Your task to perform on an android device: set the timer Image 0: 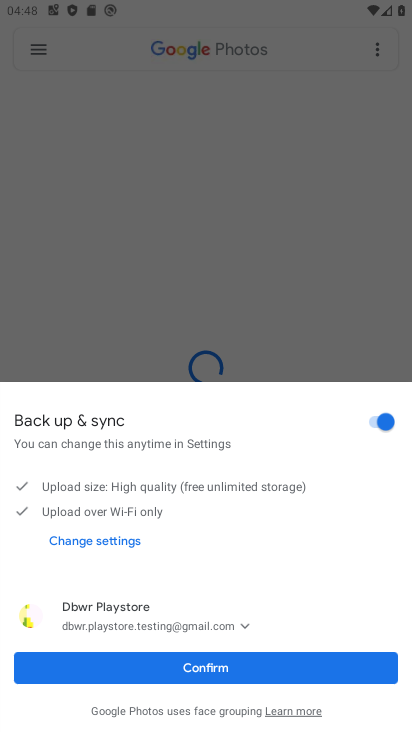
Step 0: press home button
Your task to perform on an android device: set the timer Image 1: 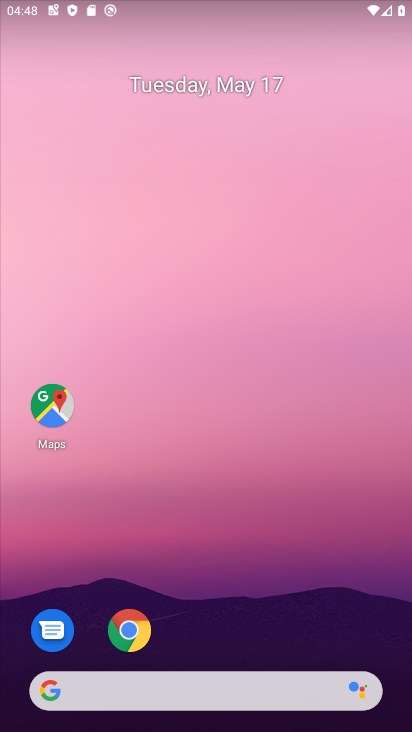
Step 1: drag from (244, 561) to (309, 51)
Your task to perform on an android device: set the timer Image 2: 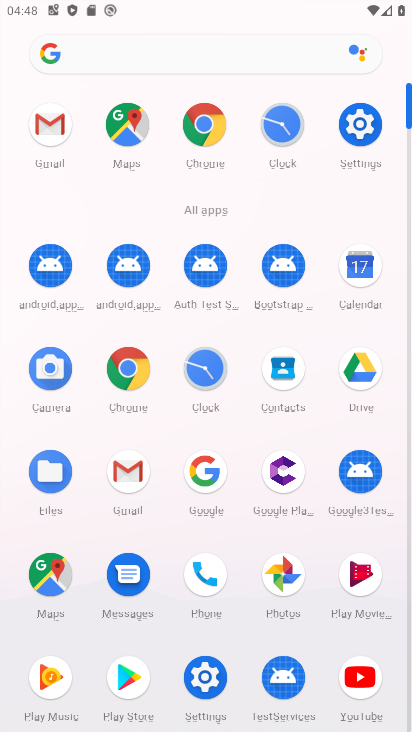
Step 2: click (352, 120)
Your task to perform on an android device: set the timer Image 3: 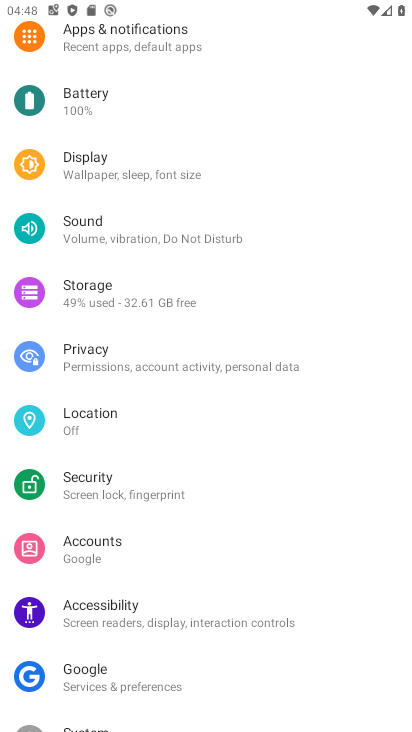
Step 3: press home button
Your task to perform on an android device: set the timer Image 4: 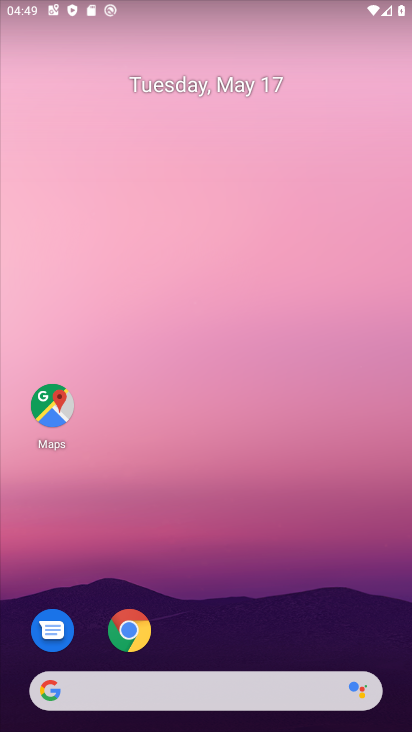
Step 4: drag from (249, 553) to (310, 49)
Your task to perform on an android device: set the timer Image 5: 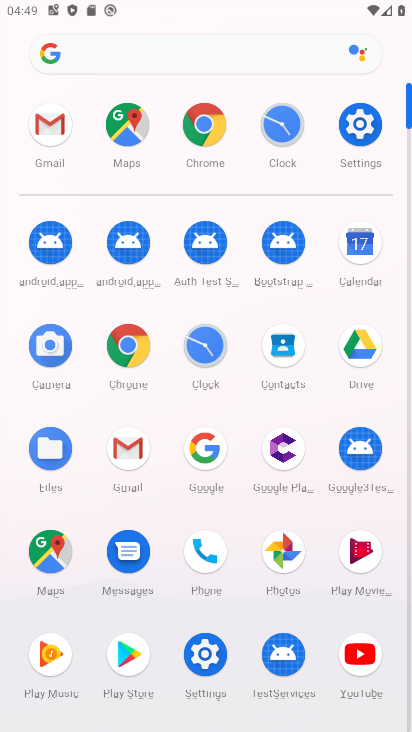
Step 5: click (288, 113)
Your task to perform on an android device: set the timer Image 6: 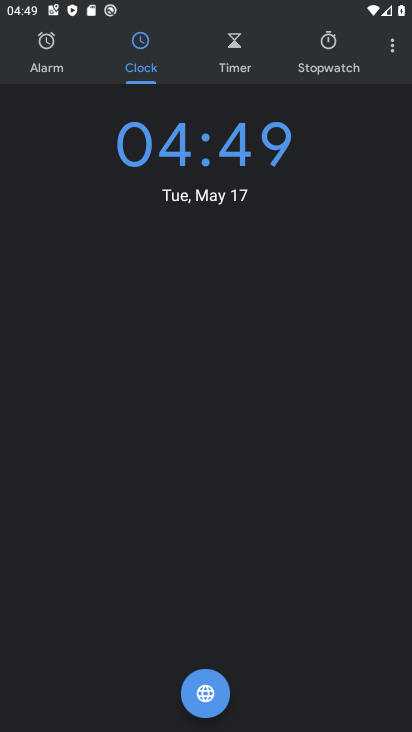
Step 6: click (233, 51)
Your task to perform on an android device: set the timer Image 7: 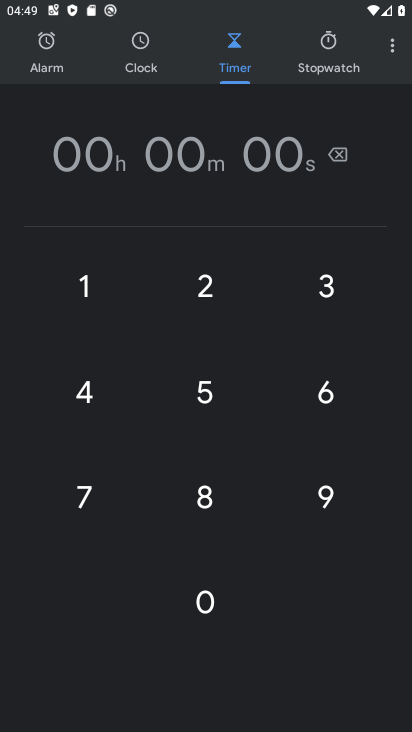
Step 7: click (209, 388)
Your task to perform on an android device: set the timer Image 8: 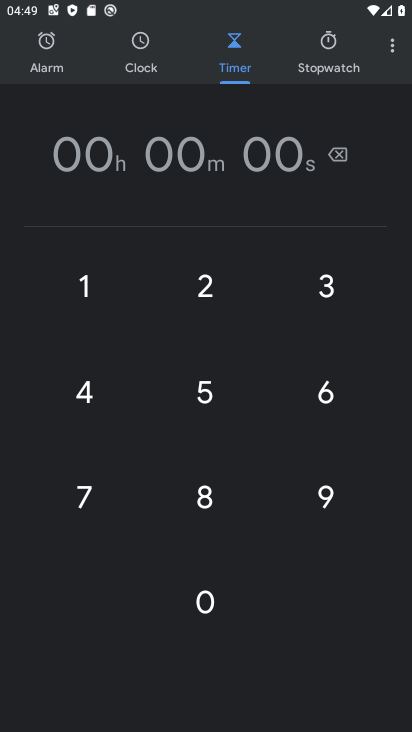
Step 8: click (209, 388)
Your task to perform on an android device: set the timer Image 9: 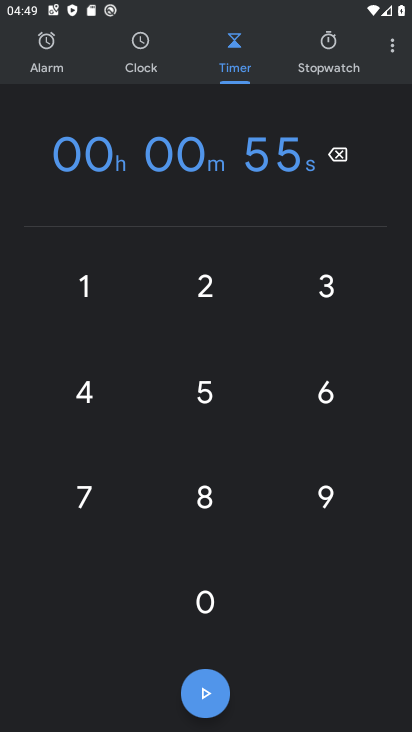
Step 9: click (211, 493)
Your task to perform on an android device: set the timer Image 10: 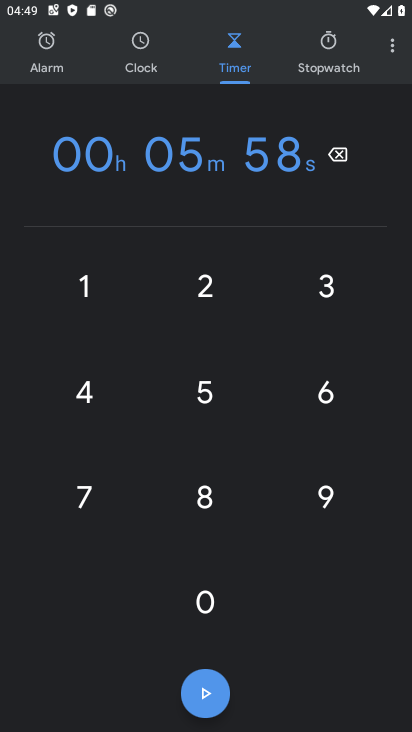
Step 10: click (207, 396)
Your task to perform on an android device: set the timer Image 11: 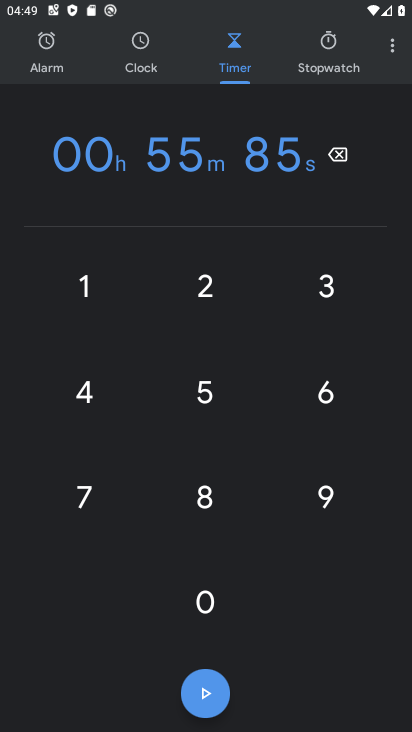
Step 11: click (222, 706)
Your task to perform on an android device: set the timer Image 12: 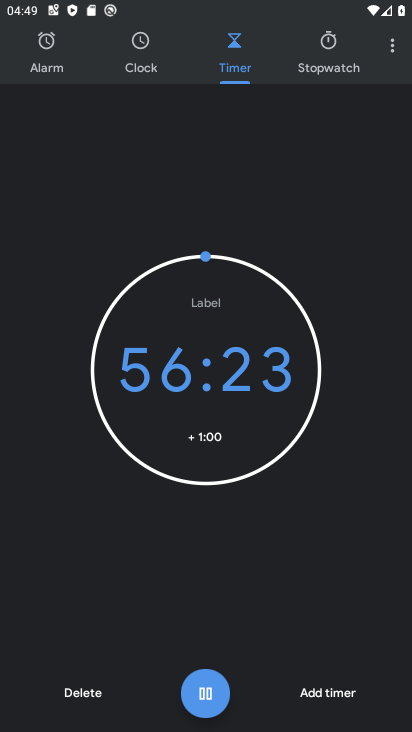
Step 12: task complete